Your task to perform on an android device: open app "Lyft - Rideshare, Bikes, Scooters & Transit" (install if not already installed) and enter user name: "deliberating@gmail.com" and password: "preyed" Image 0: 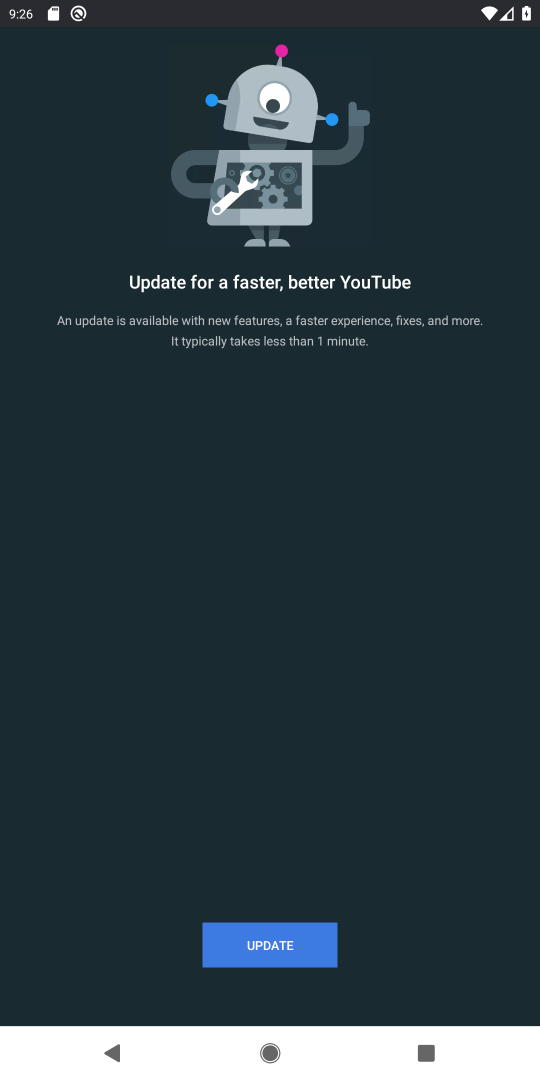
Step 0: press home button
Your task to perform on an android device: open app "Lyft - Rideshare, Bikes, Scooters & Transit" (install if not already installed) and enter user name: "deliberating@gmail.com" and password: "preyed" Image 1: 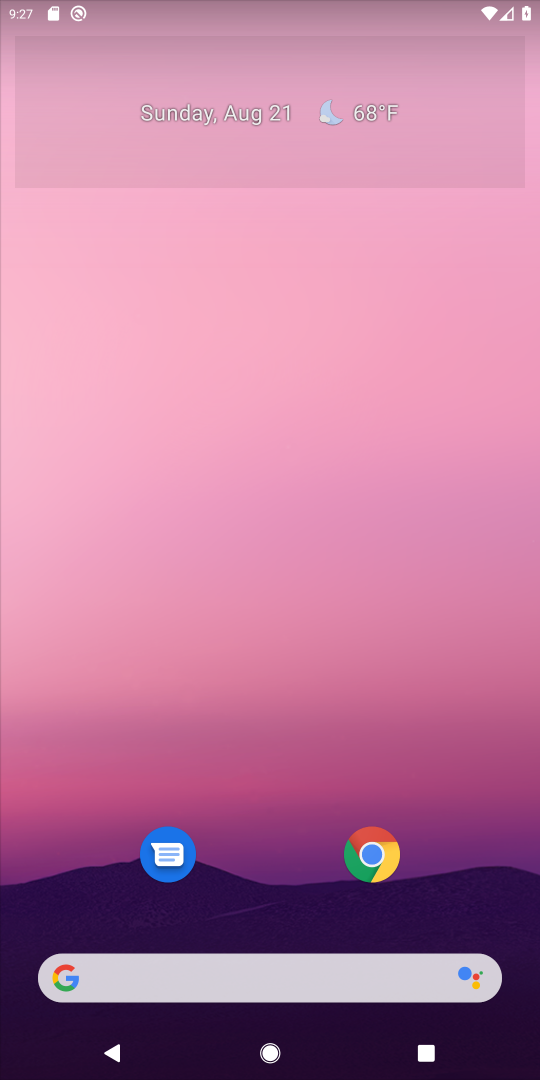
Step 1: drag from (302, 917) to (86, 3)
Your task to perform on an android device: open app "Lyft - Rideshare, Bikes, Scooters & Transit" (install if not already installed) and enter user name: "deliberating@gmail.com" and password: "preyed" Image 2: 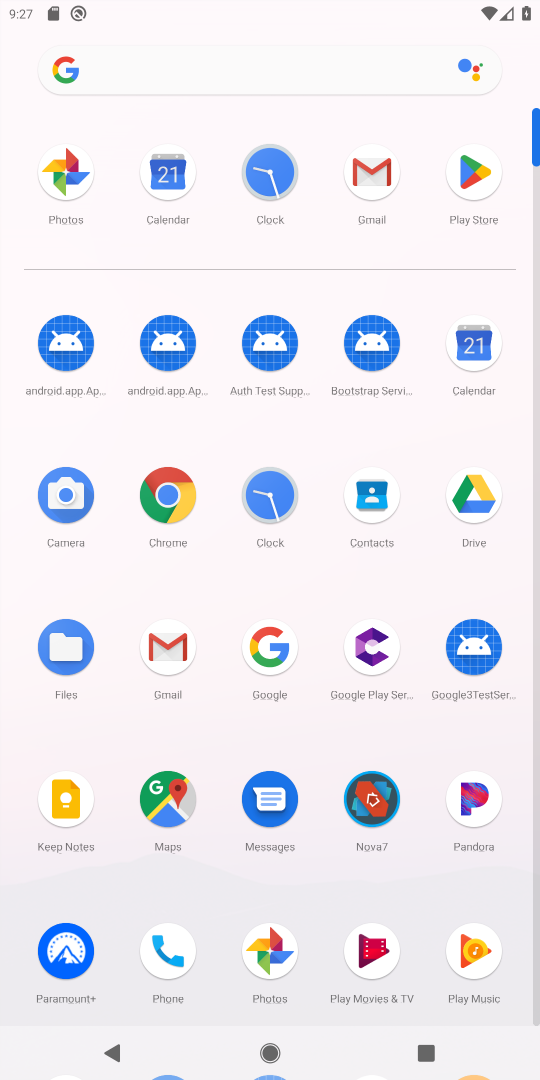
Step 2: click (470, 194)
Your task to perform on an android device: open app "Lyft - Rideshare, Bikes, Scooters & Transit" (install if not already installed) and enter user name: "deliberating@gmail.com" and password: "preyed" Image 3: 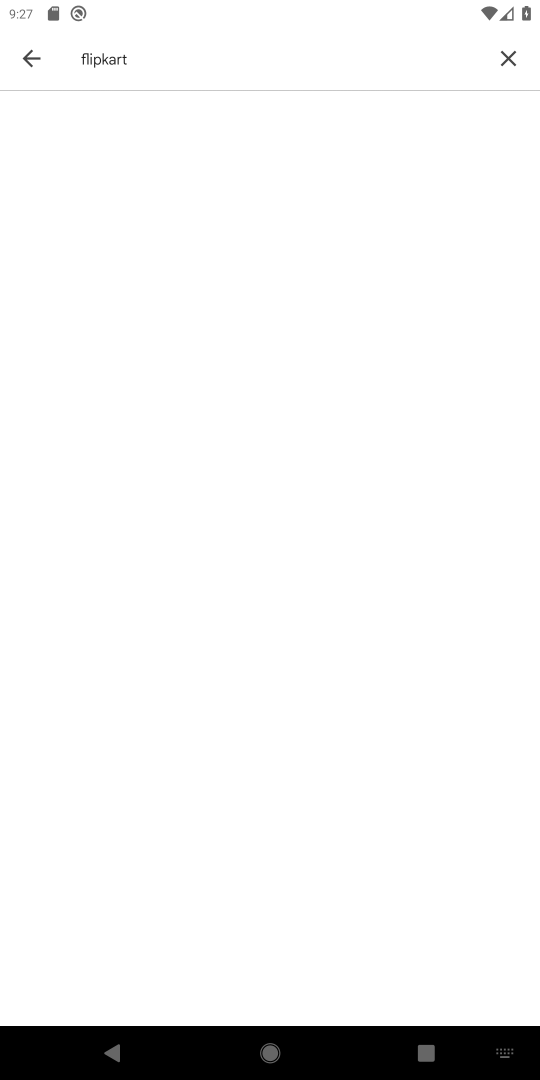
Step 3: click (518, 54)
Your task to perform on an android device: open app "Lyft - Rideshare, Bikes, Scooters & Transit" (install if not already installed) and enter user name: "deliberating@gmail.com" and password: "preyed" Image 4: 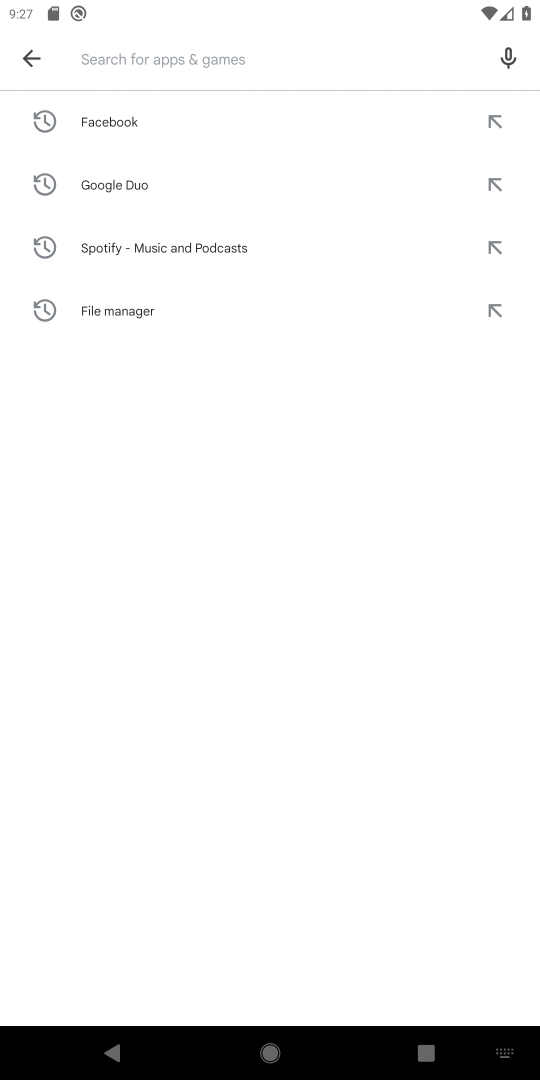
Step 4: type "lyst"
Your task to perform on an android device: open app "Lyft - Rideshare, Bikes, Scooters & Transit" (install if not already installed) and enter user name: "deliberating@gmail.com" and password: "preyed" Image 5: 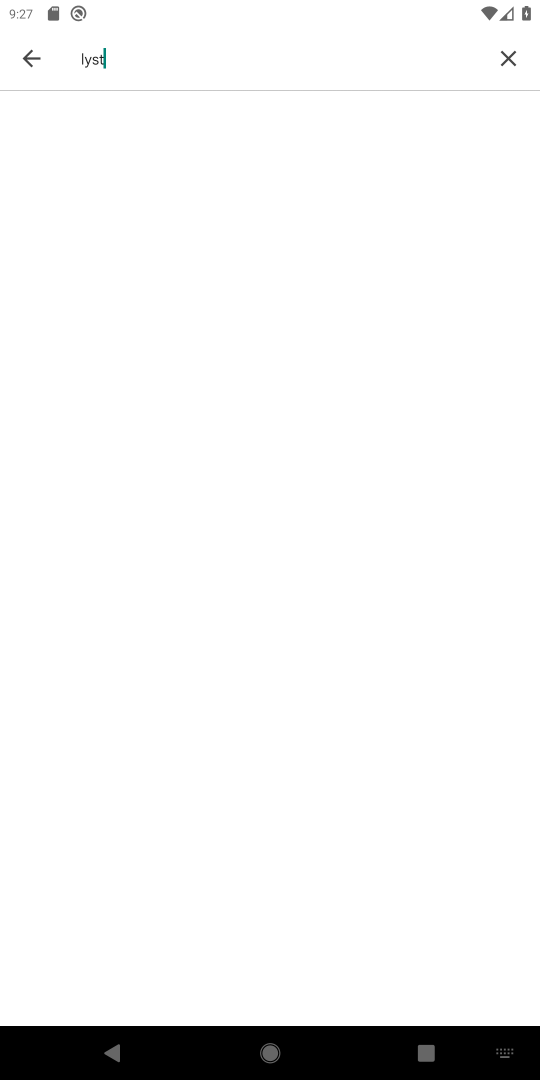
Step 5: task complete